Your task to perform on an android device: Open Android settings Image 0: 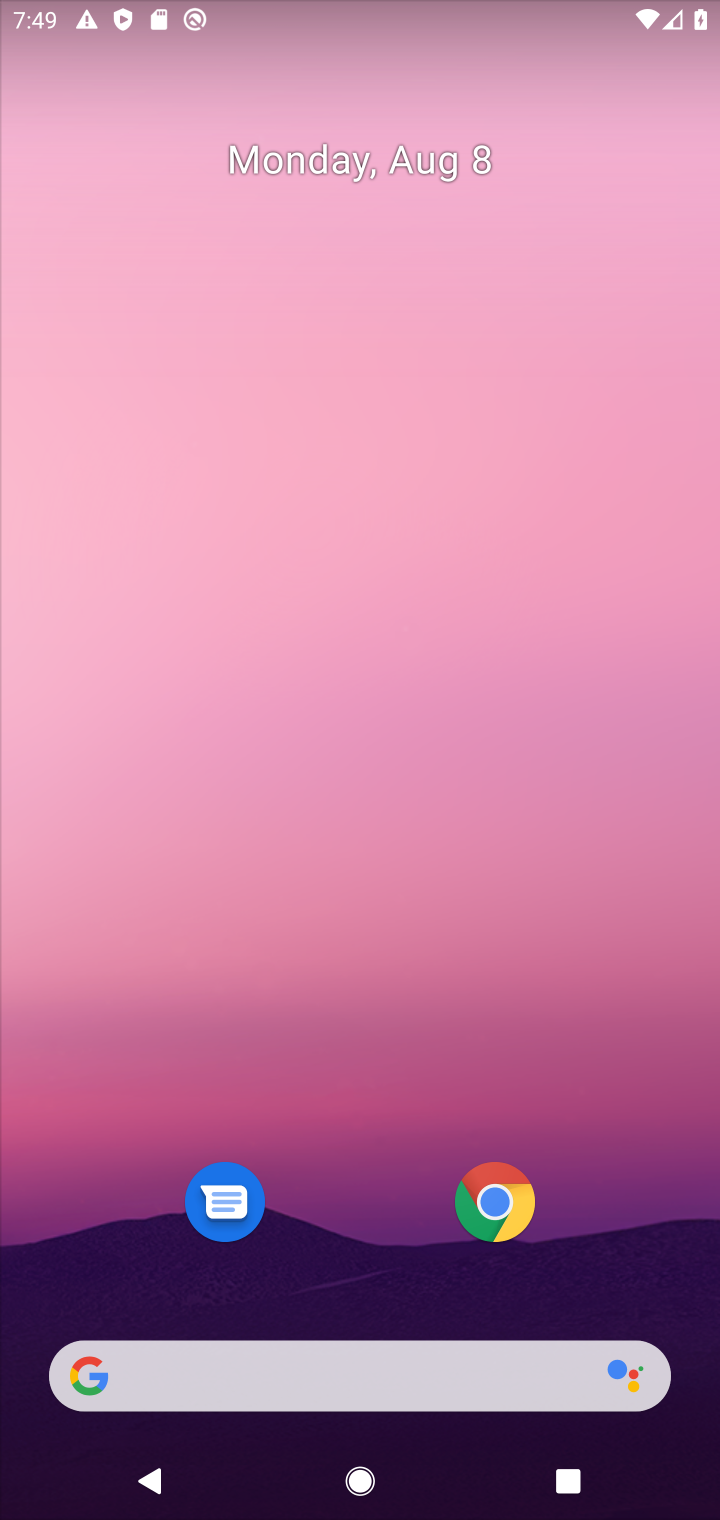
Step 0: drag from (334, 1187) to (56, 324)
Your task to perform on an android device: Open Android settings Image 1: 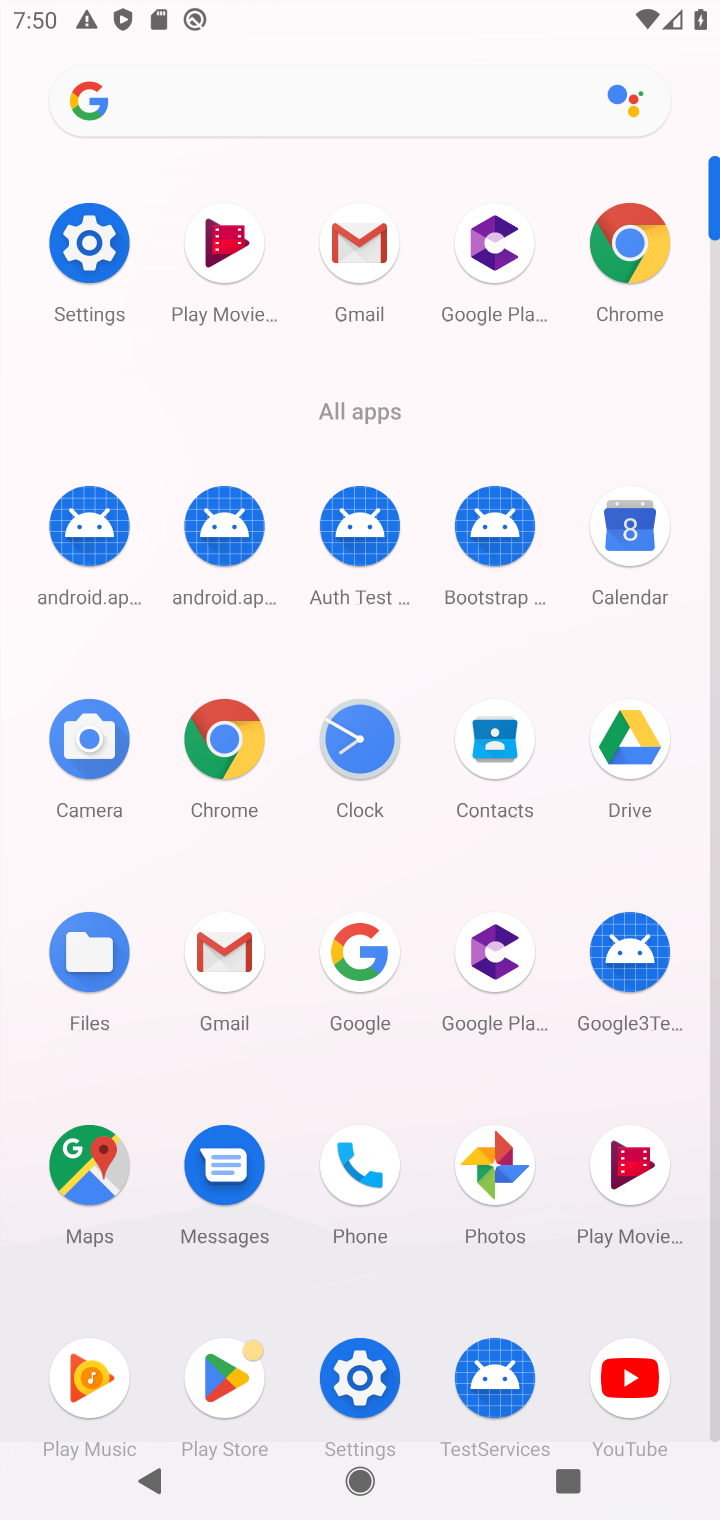
Step 1: click (71, 272)
Your task to perform on an android device: Open Android settings Image 2: 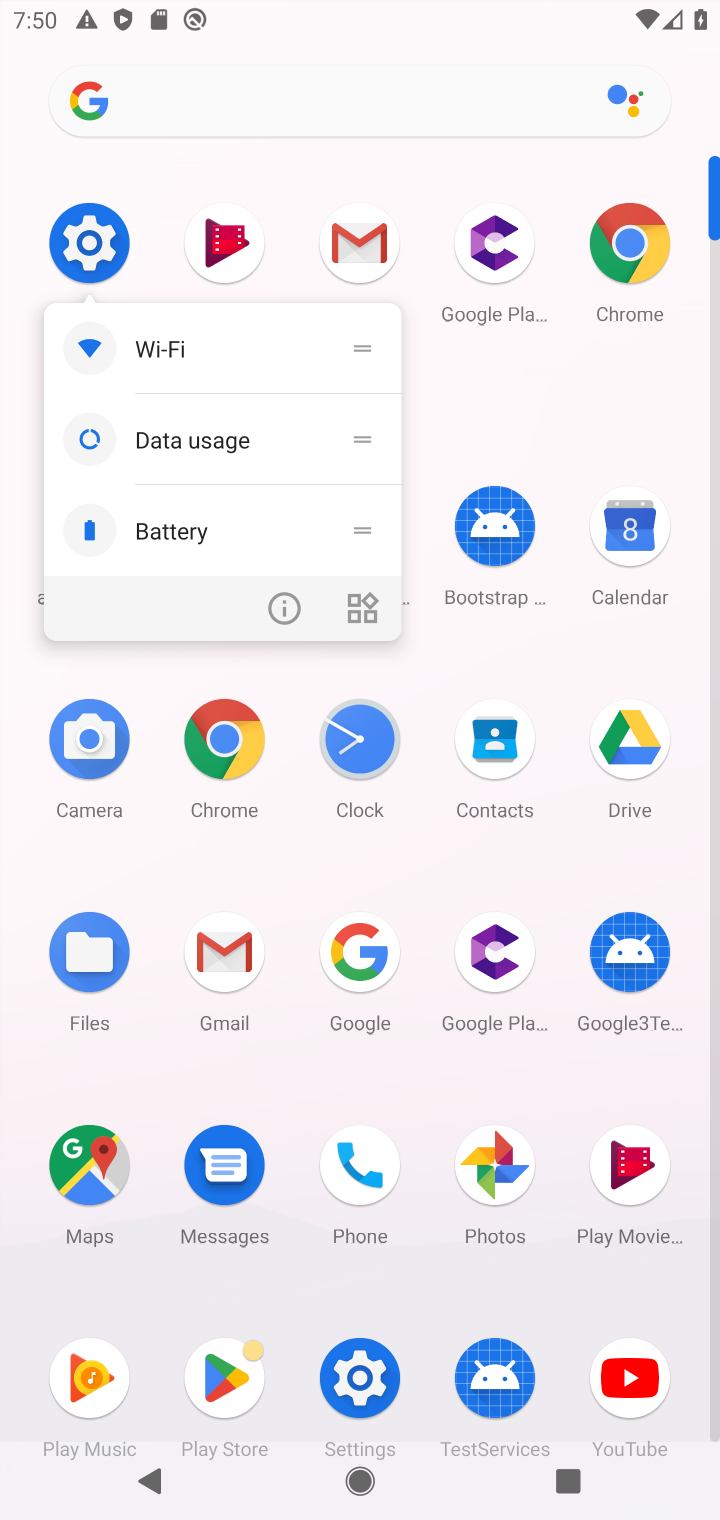
Step 2: click (350, 1383)
Your task to perform on an android device: Open Android settings Image 3: 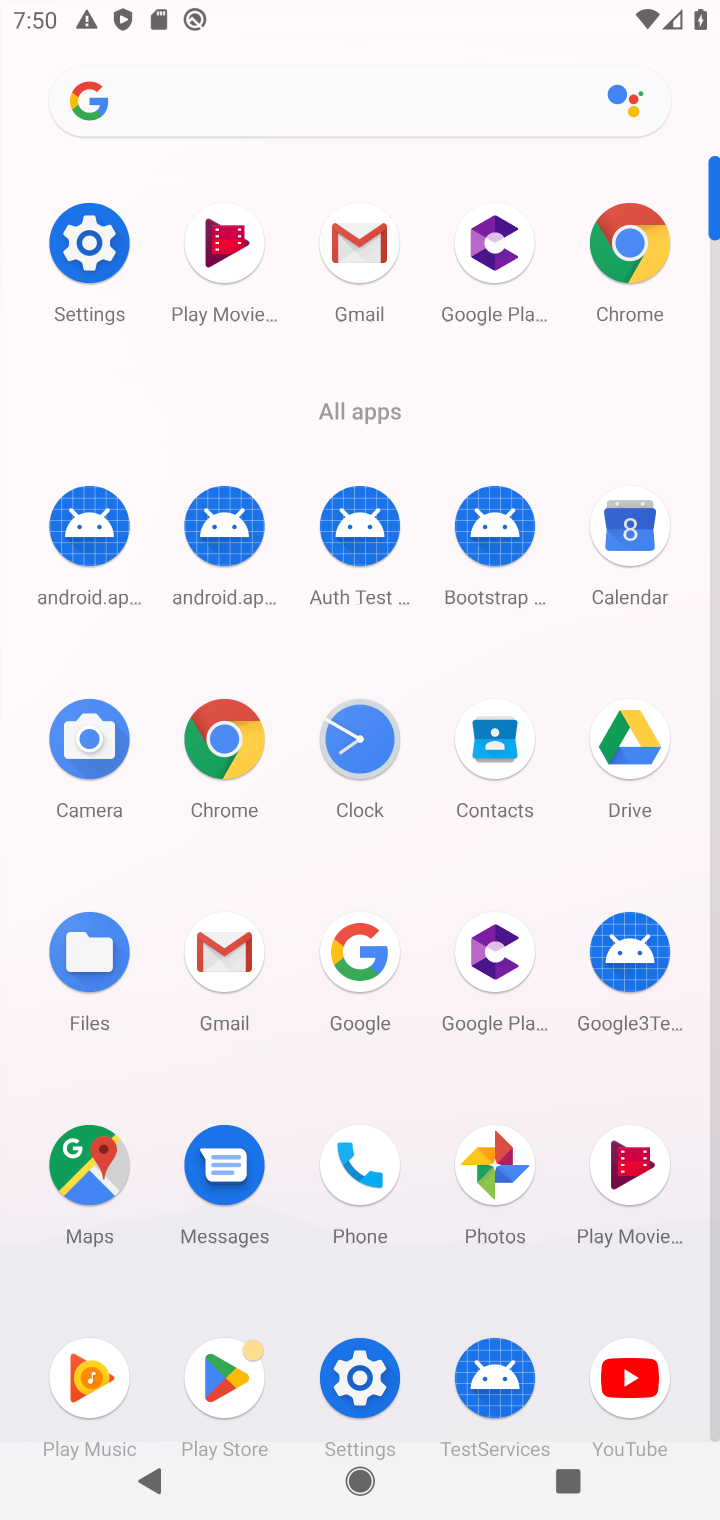
Step 3: click (373, 1395)
Your task to perform on an android device: Open Android settings Image 4: 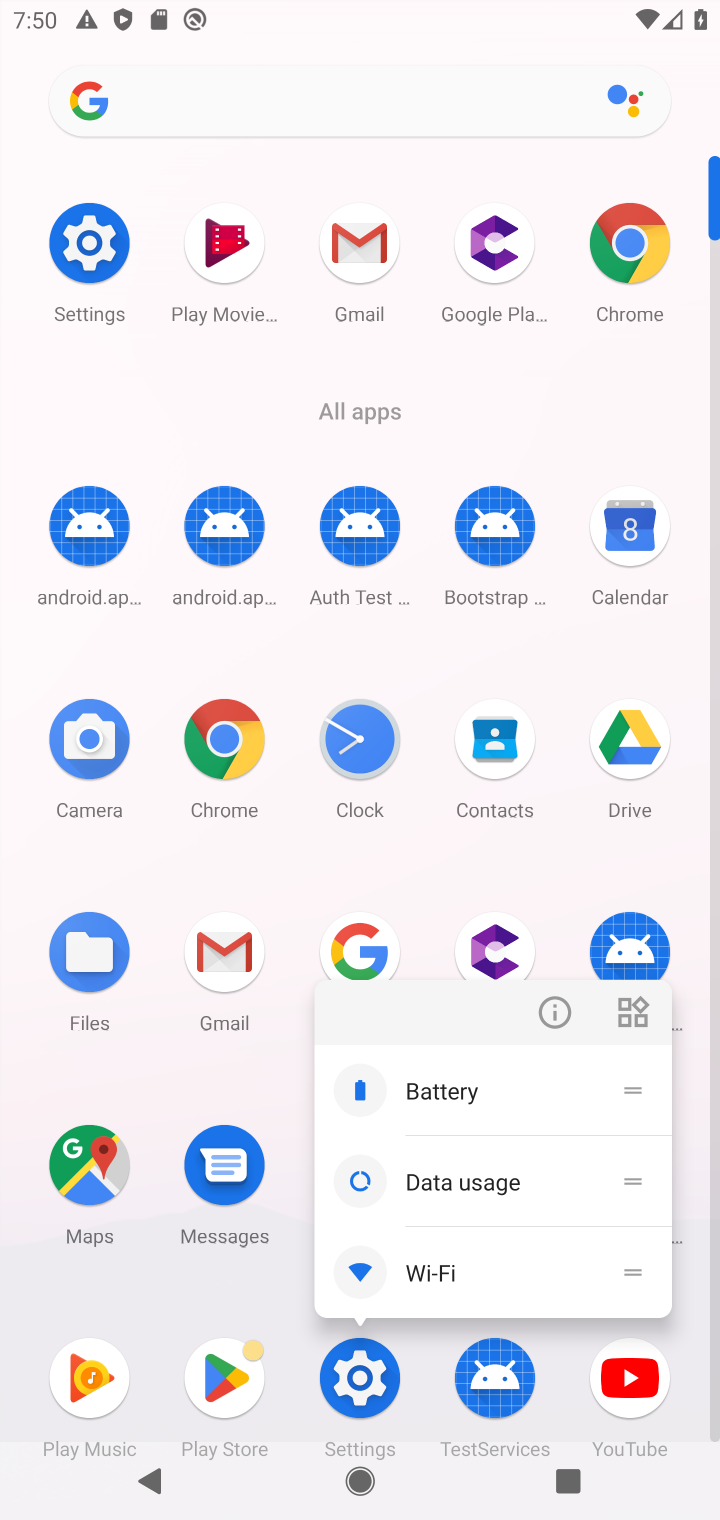
Step 4: click (364, 1392)
Your task to perform on an android device: Open Android settings Image 5: 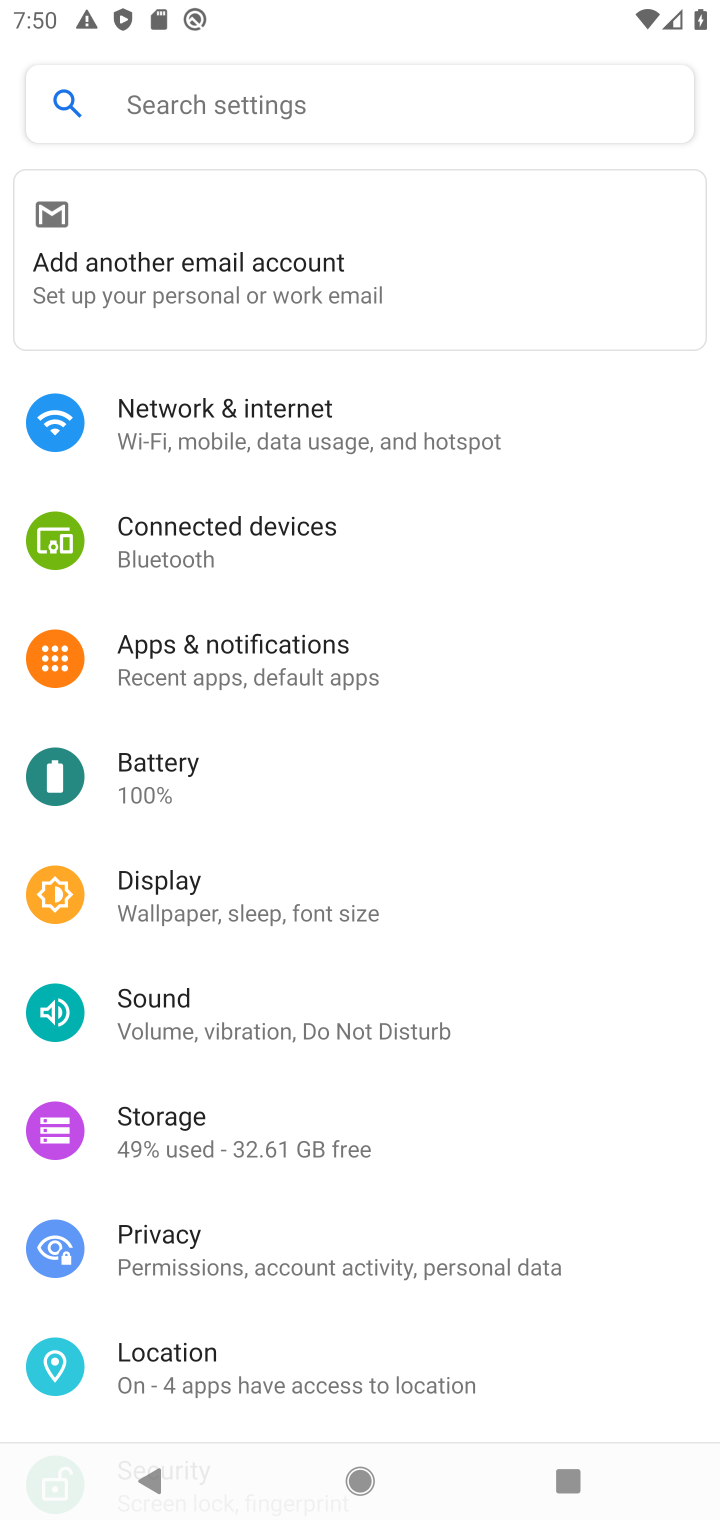
Step 5: drag from (363, 1105) to (515, 119)
Your task to perform on an android device: Open Android settings Image 6: 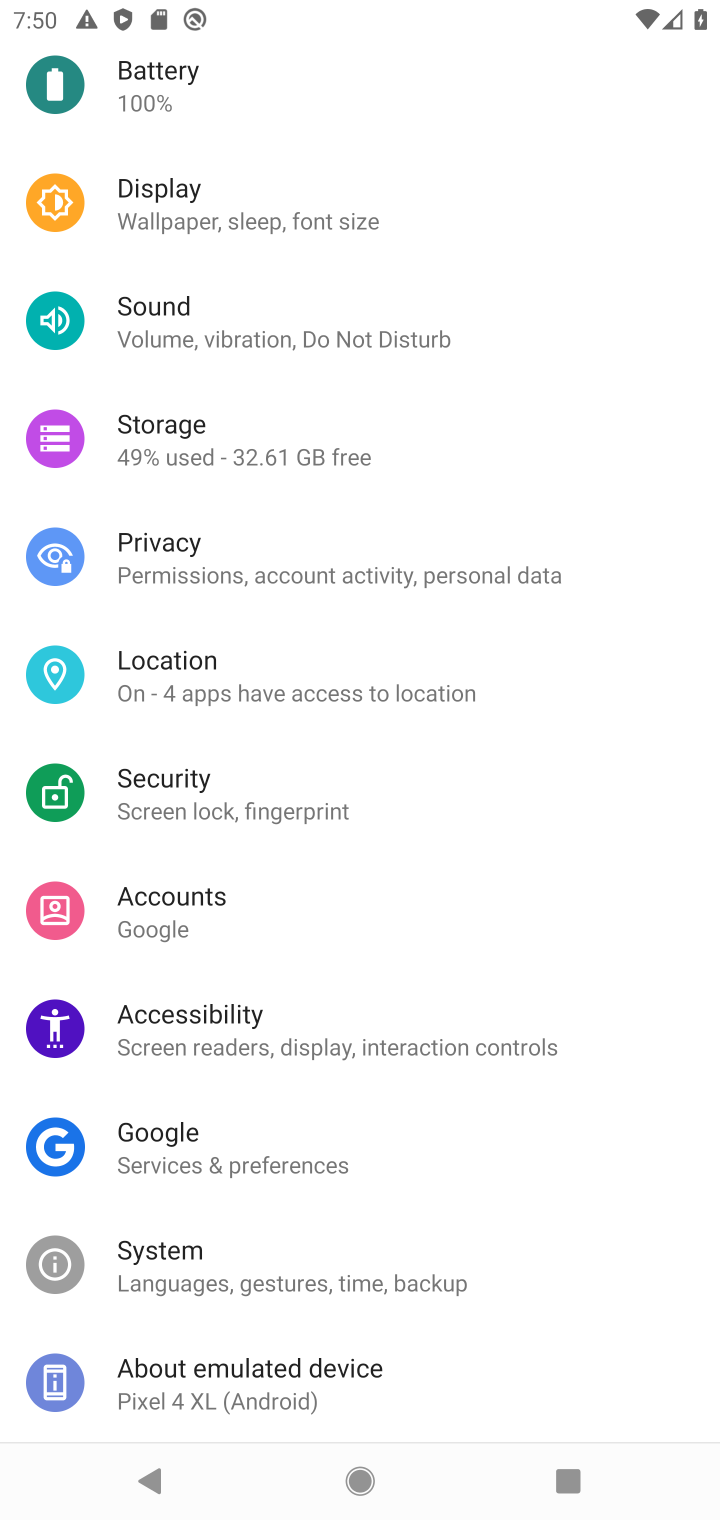
Step 6: click (236, 1367)
Your task to perform on an android device: Open Android settings Image 7: 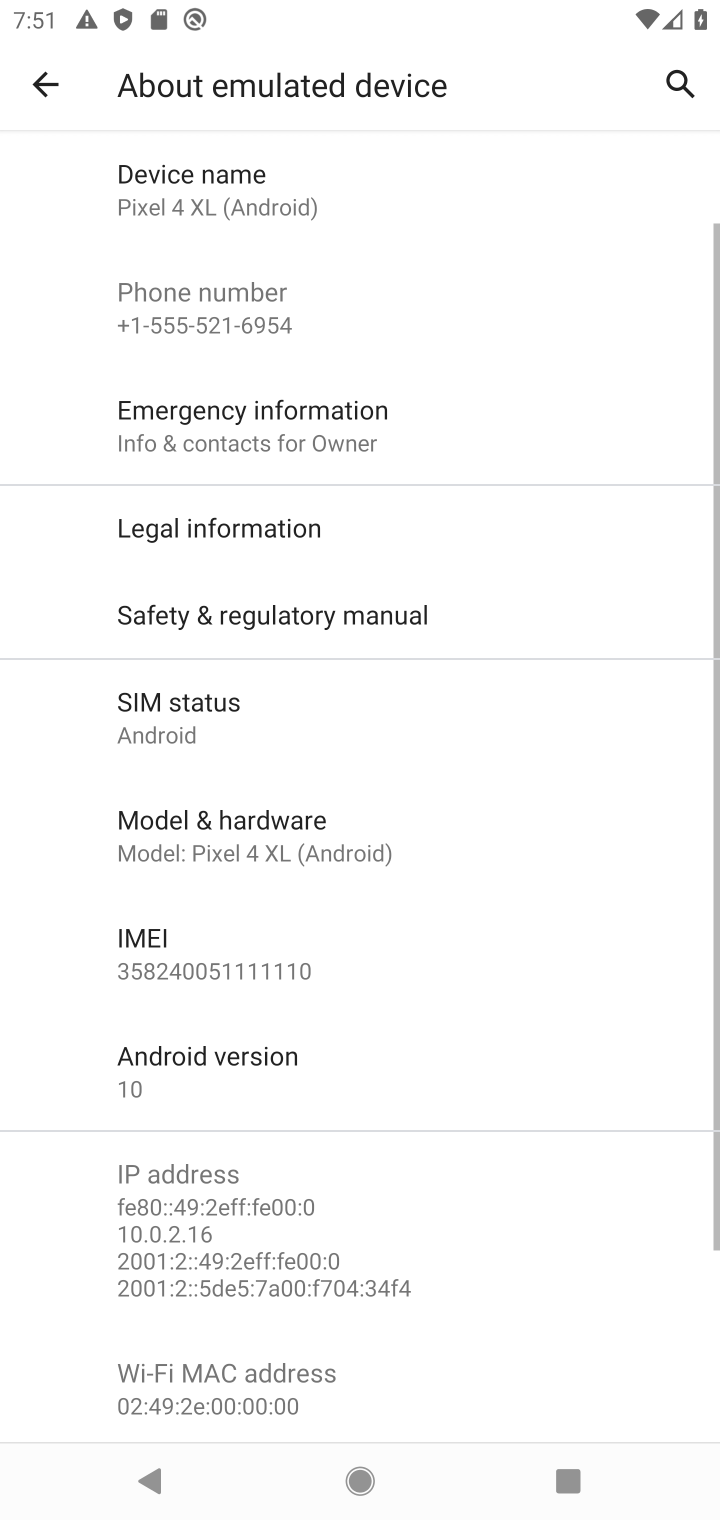
Step 7: click (321, 1083)
Your task to perform on an android device: Open Android settings Image 8: 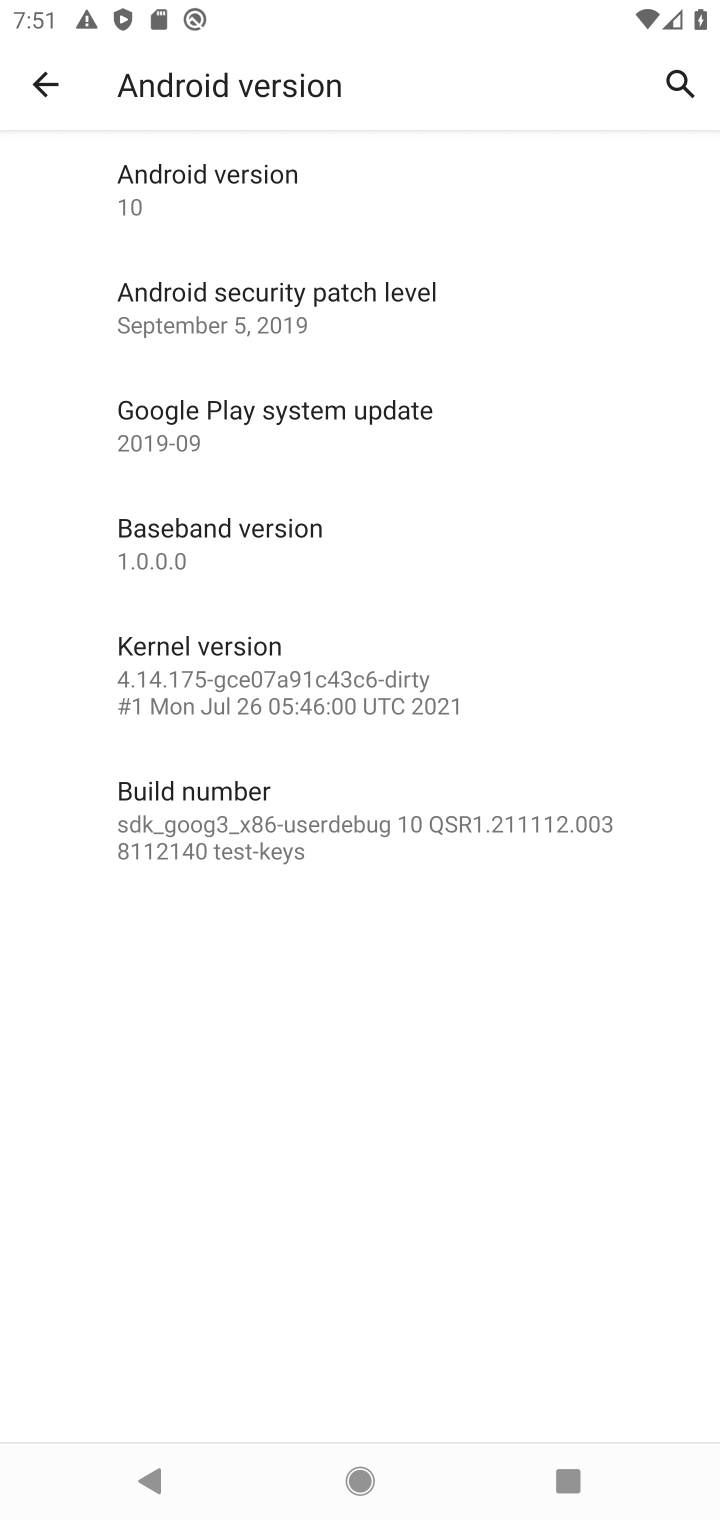
Step 8: task complete